Your task to perform on an android device: Open Google Chrome and open the bookmarks view Image 0: 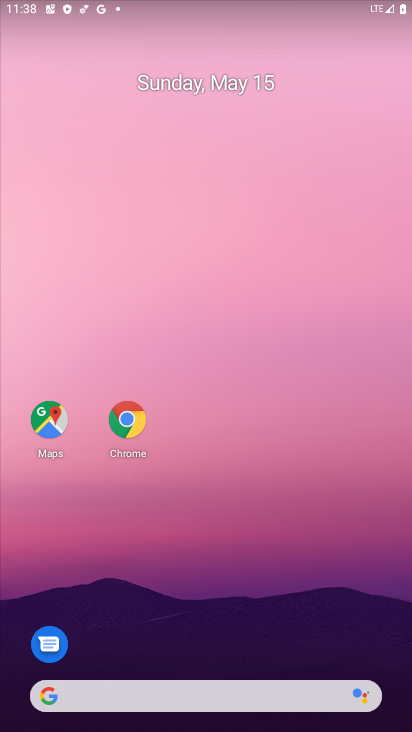
Step 0: drag from (209, 584) to (223, 242)
Your task to perform on an android device: Open Google Chrome and open the bookmarks view Image 1: 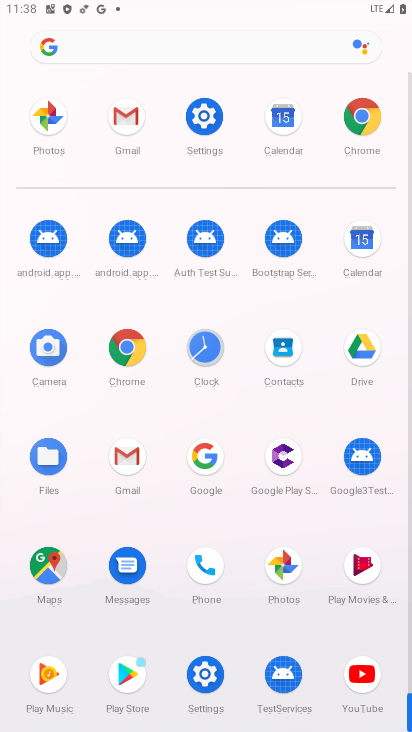
Step 1: drag from (162, 618) to (221, 226)
Your task to perform on an android device: Open Google Chrome and open the bookmarks view Image 2: 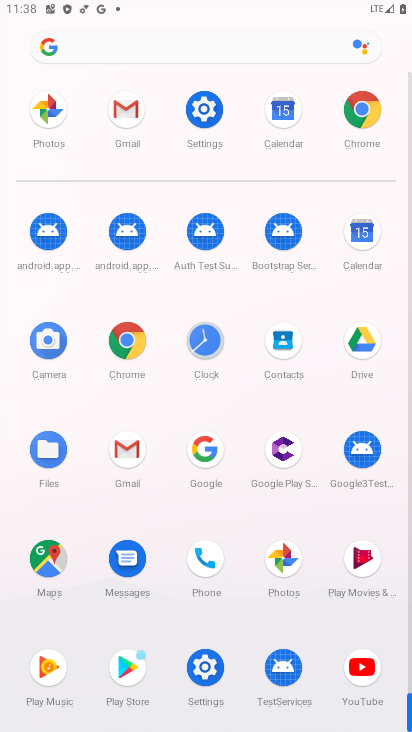
Step 2: drag from (265, 621) to (271, 481)
Your task to perform on an android device: Open Google Chrome and open the bookmarks view Image 3: 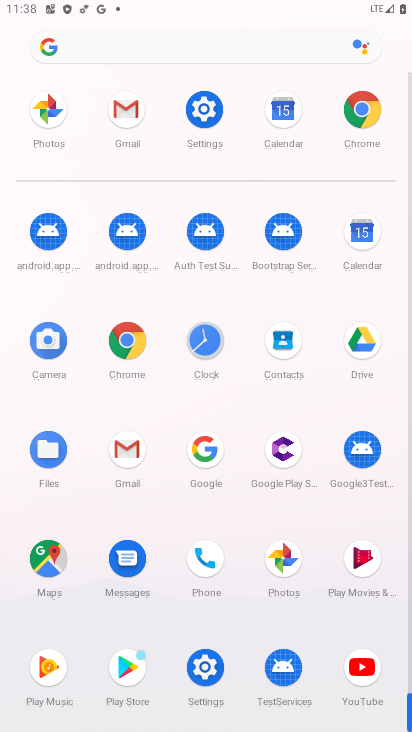
Step 3: click (127, 340)
Your task to perform on an android device: Open Google Chrome and open the bookmarks view Image 4: 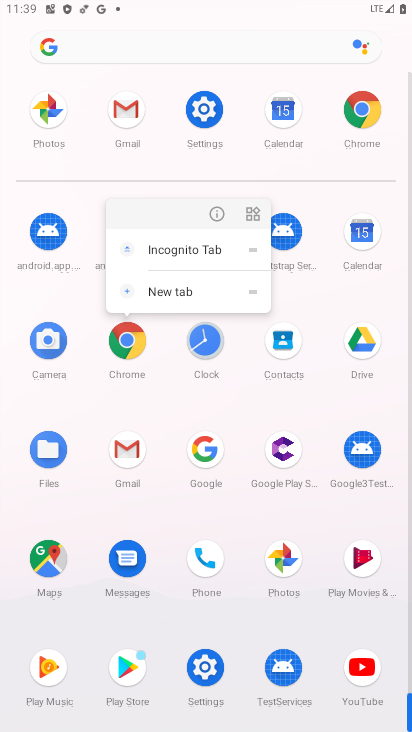
Step 4: click (215, 220)
Your task to perform on an android device: Open Google Chrome and open the bookmarks view Image 5: 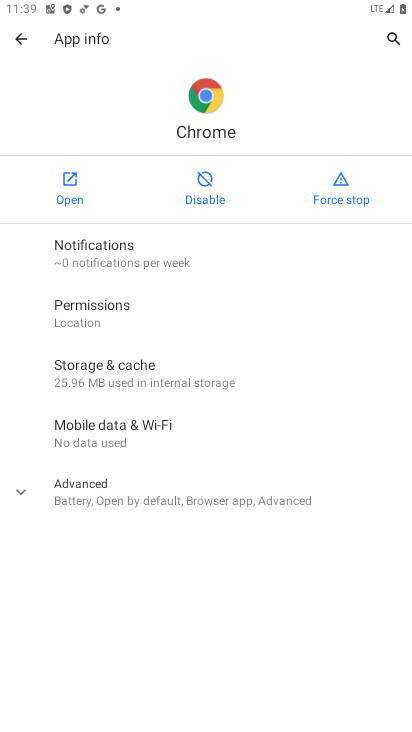
Step 5: click (74, 180)
Your task to perform on an android device: Open Google Chrome and open the bookmarks view Image 6: 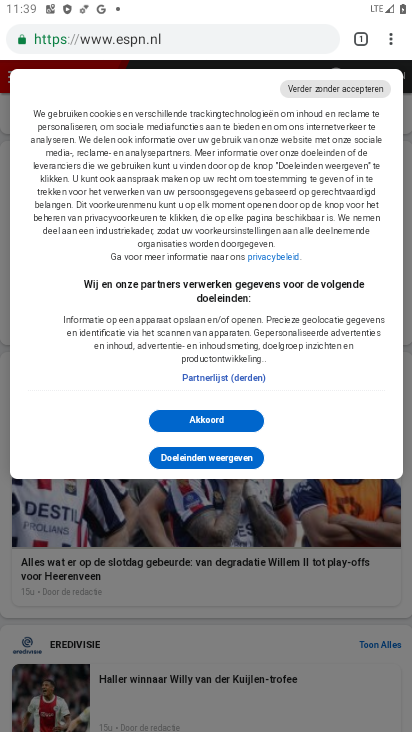
Step 6: drag from (386, 37) to (278, 475)
Your task to perform on an android device: Open Google Chrome and open the bookmarks view Image 7: 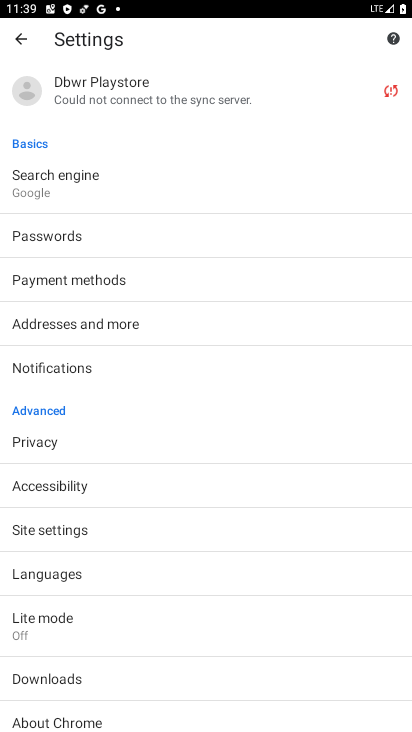
Step 7: drag from (199, 535) to (276, 250)
Your task to perform on an android device: Open Google Chrome and open the bookmarks view Image 8: 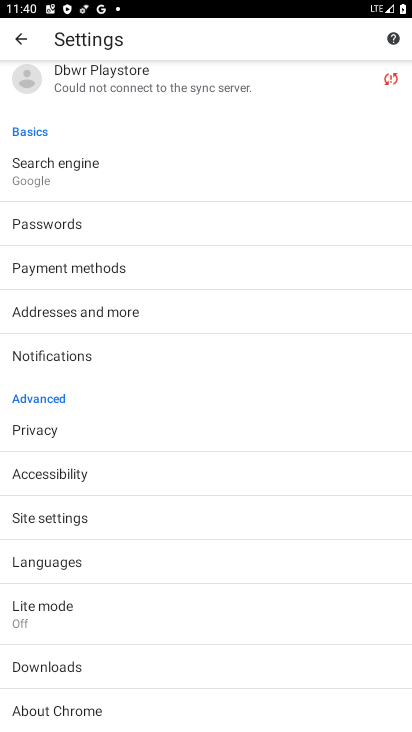
Step 8: drag from (240, 676) to (292, 281)
Your task to perform on an android device: Open Google Chrome and open the bookmarks view Image 9: 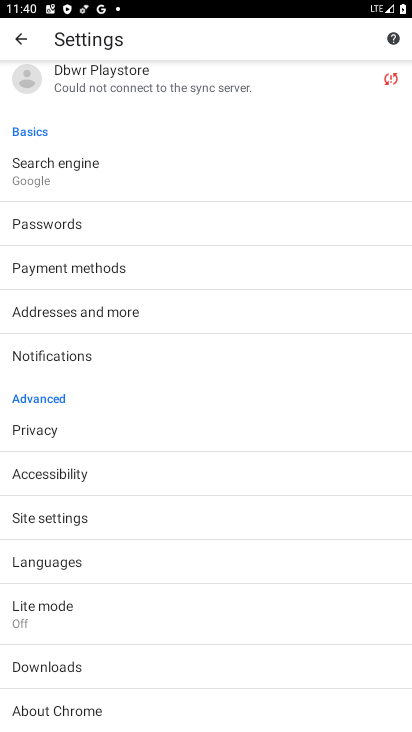
Step 9: click (19, 55)
Your task to perform on an android device: Open Google Chrome and open the bookmarks view Image 10: 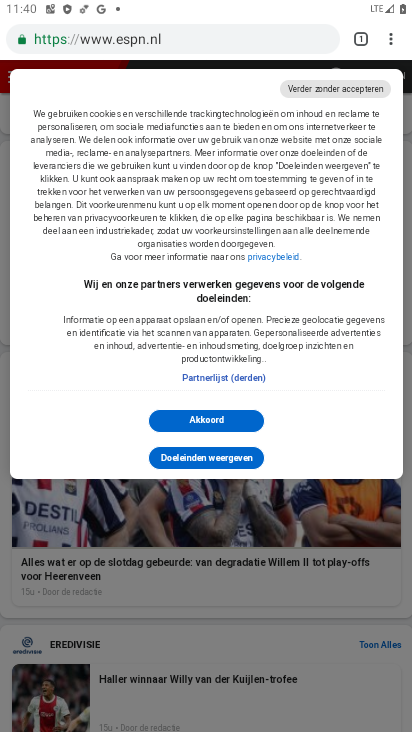
Step 10: task complete